Your task to perform on an android device: Go to Reddit.com Image 0: 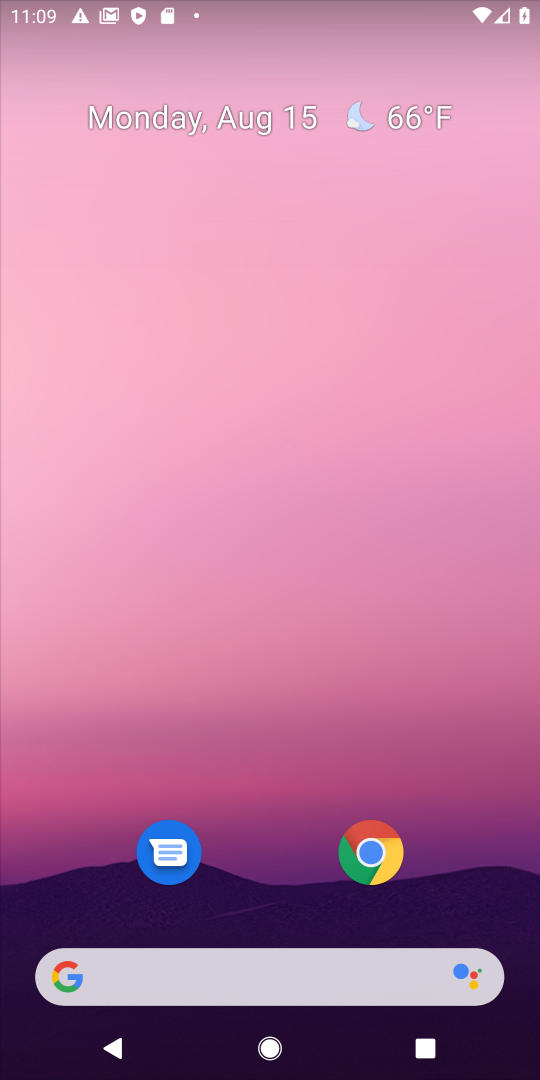
Step 0: click (360, 841)
Your task to perform on an android device: Go to Reddit.com Image 1: 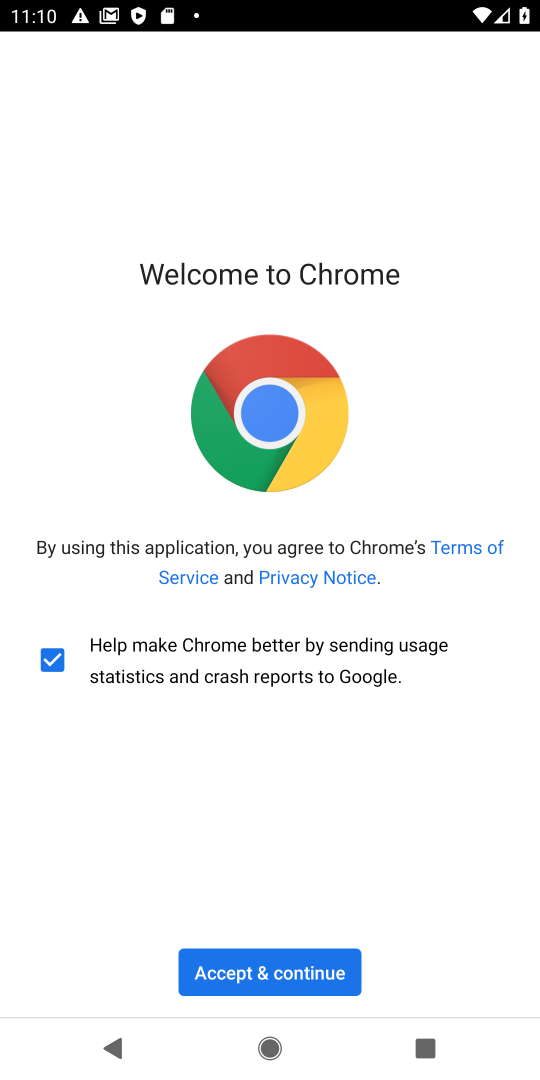
Step 1: click (275, 978)
Your task to perform on an android device: Go to Reddit.com Image 2: 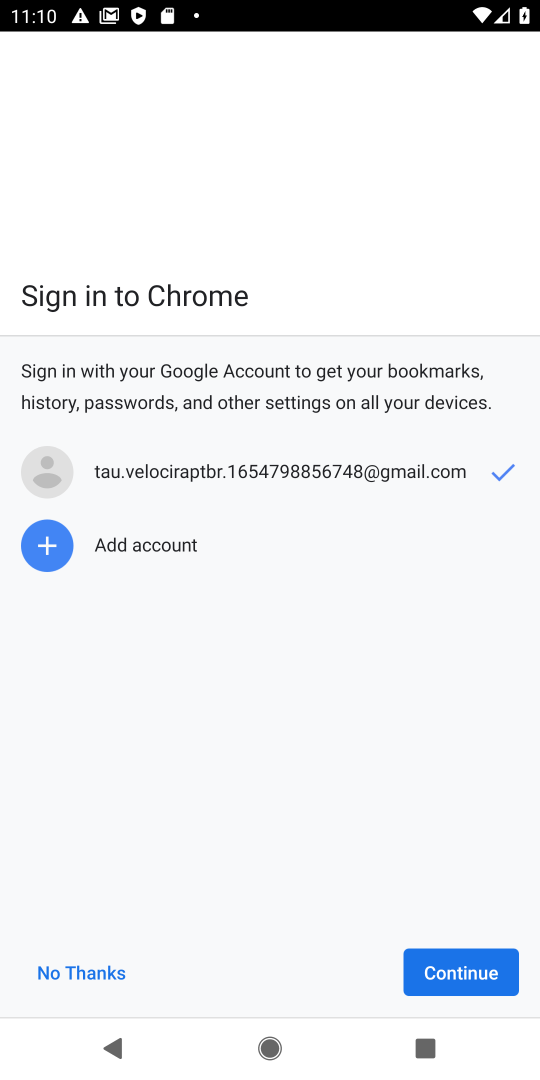
Step 2: click (489, 980)
Your task to perform on an android device: Go to Reddit.com Image 3: 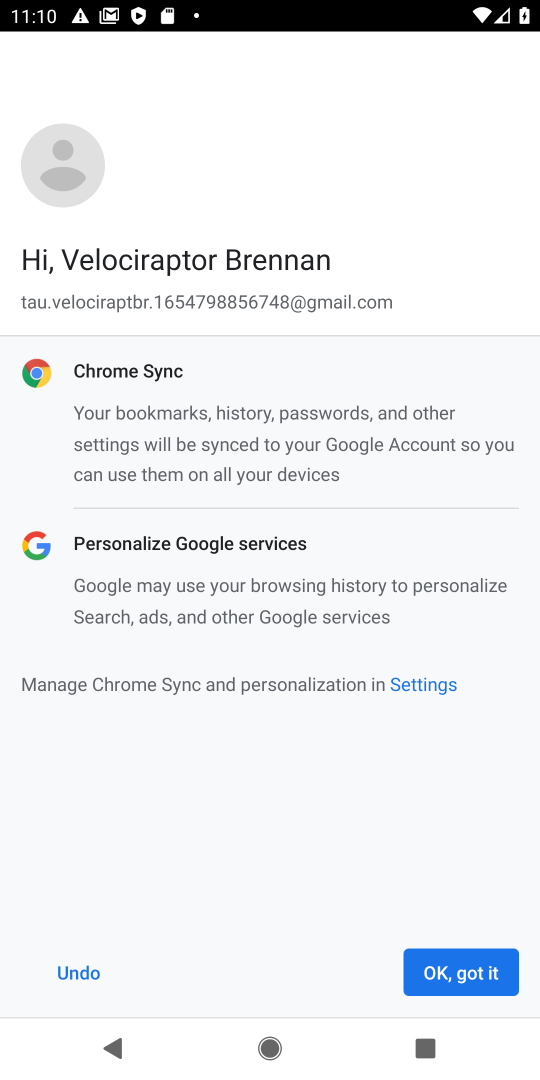
Step 3: click (460, 966)
Your task to perform on an android device: Go to Reddit.com Image 4: 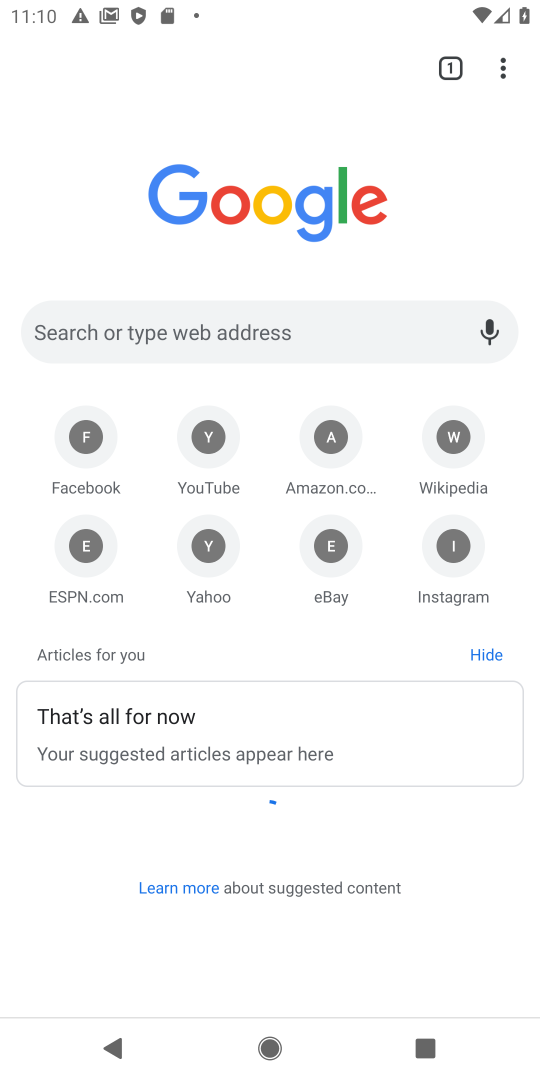
Step 4: click (233, 343)
Your task to perform on an android device: Go to Reddit.com Image 5: 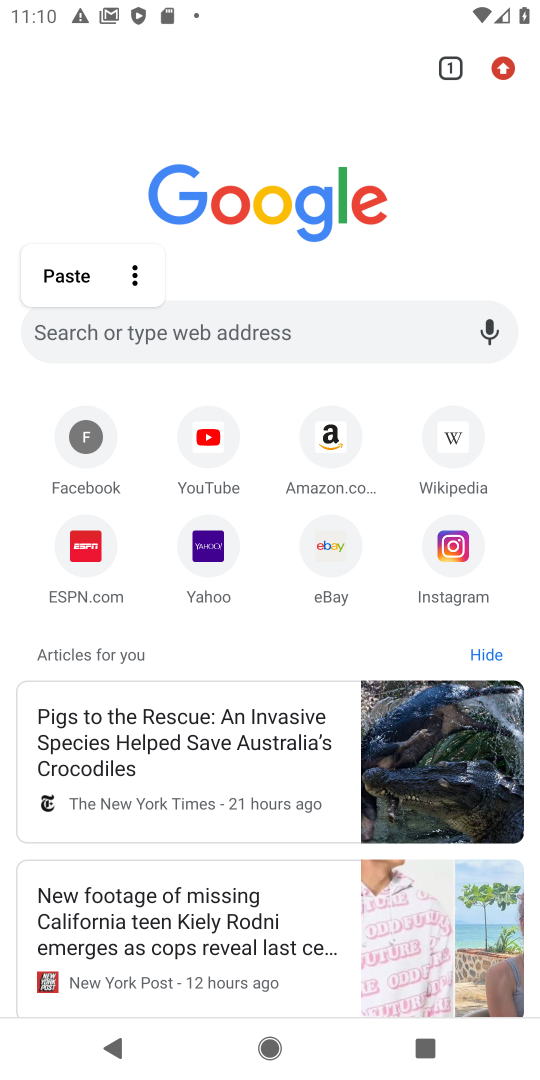
Step 5: type "reddit.com"
Your task to perform on an android device: Go to Reddit.com Image 6: 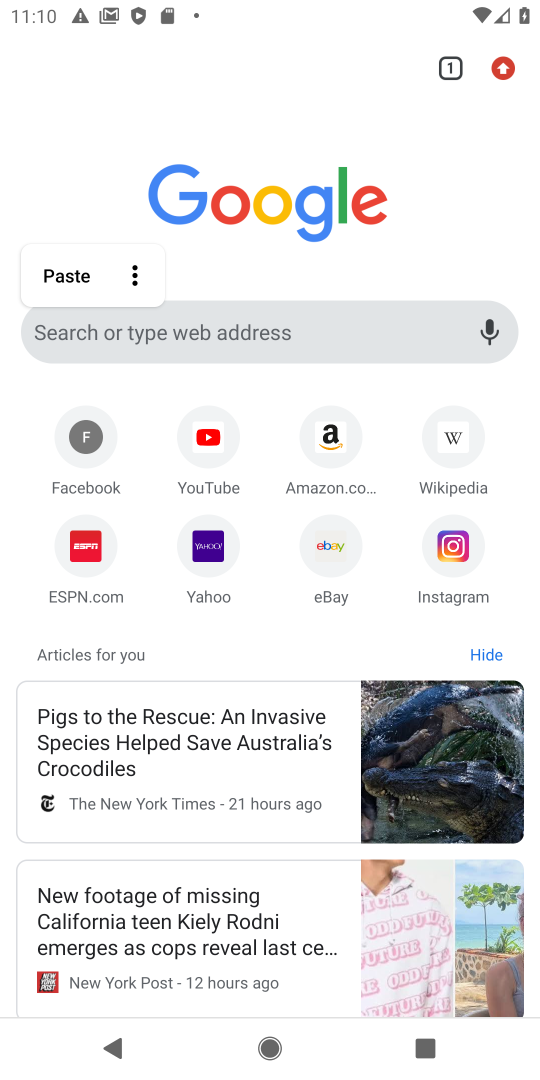
Step 6: click (306, 334)
Your task to perform on an android device: Go to Reddit.com Image 7: 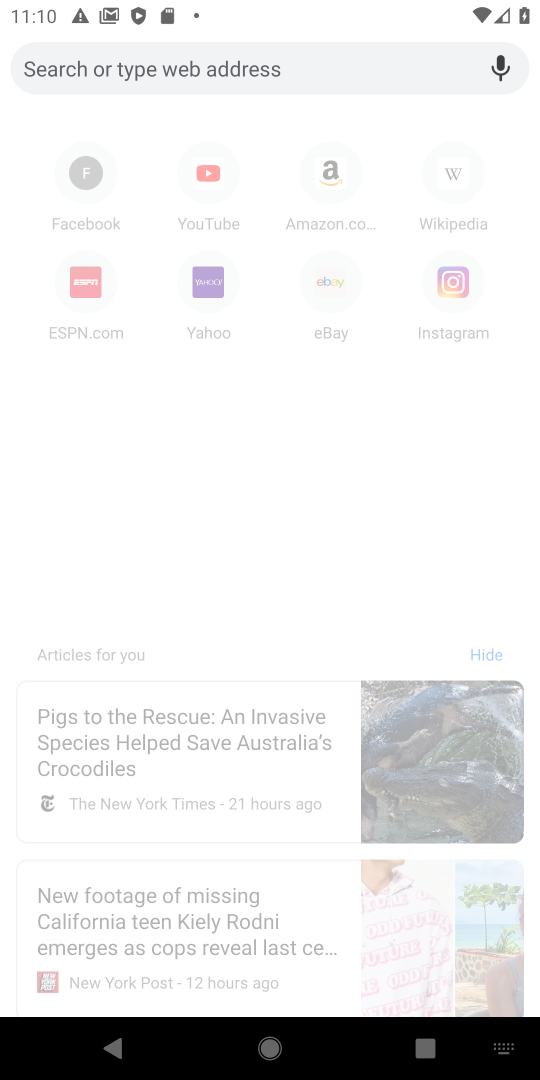
Step 7: type "reddit.com"
Your task to perform on an android device: Go to Reddit.com Image 8: 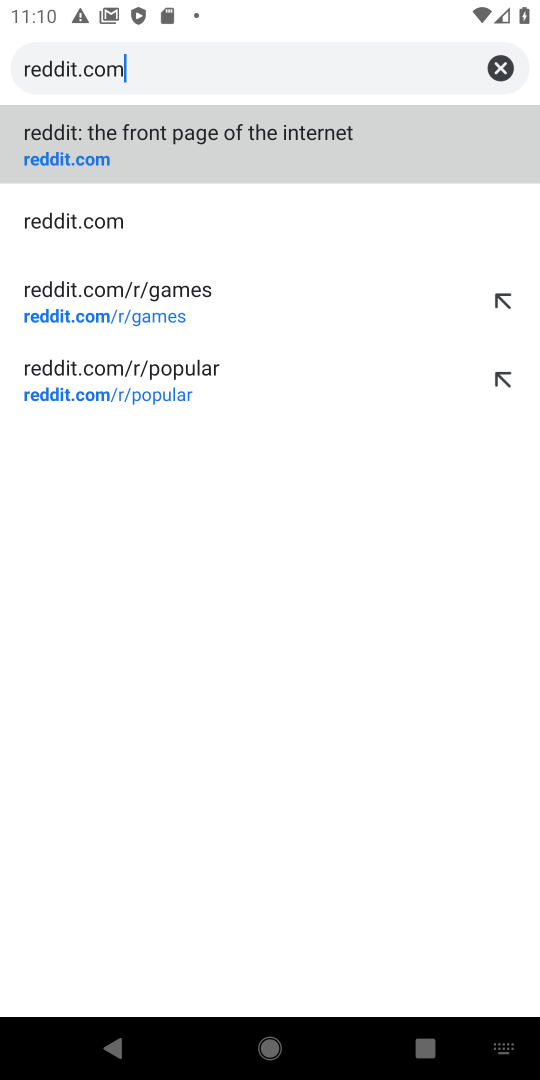
Step 8: click (320, 145)
Your task to perform on an android device: Go to Reddit.com Image 9: 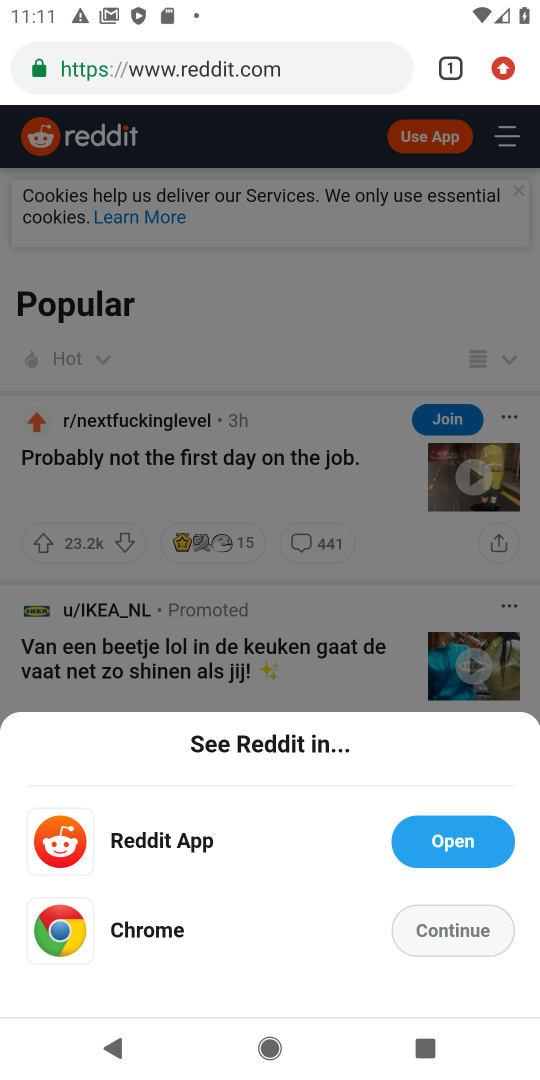
Step 9: task complete